Your task to perform on an android device: What's the weather going to be this weekend? Image 0: 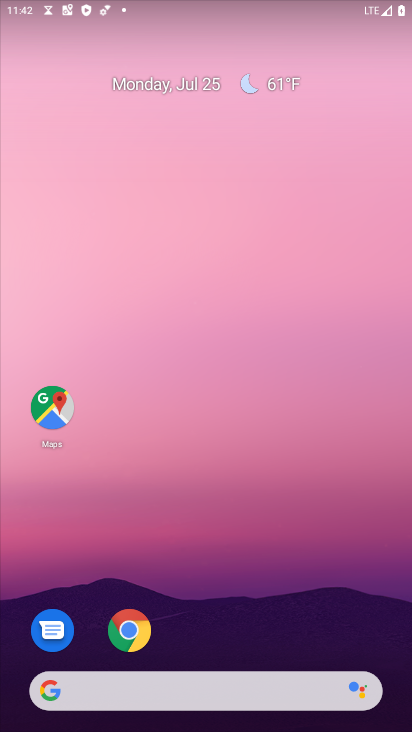
Step 0: click (194, 679)
Your task to perform on an android device: What's the weather going to be this weekend? Image 1: 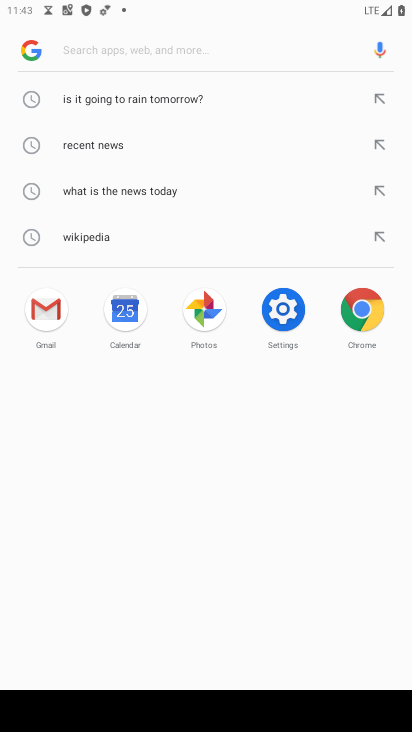
Step 1: type "what's the weather going to be this weekend"
Your task to perform on an android device: What's the weather going to be this weekend? Image 2: 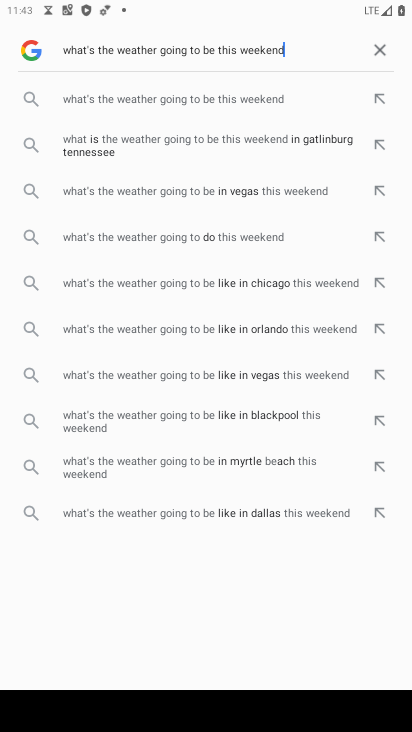
Step 2: click (229, 107)
Your task to perform on an android device: What's the weather going to be this weekend? Image 3: 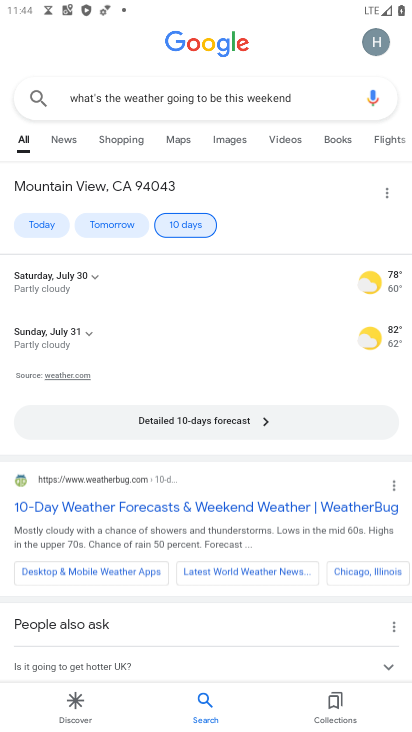
Step 3: task complete